Your task to perform on an android device: Check the news Image 0: 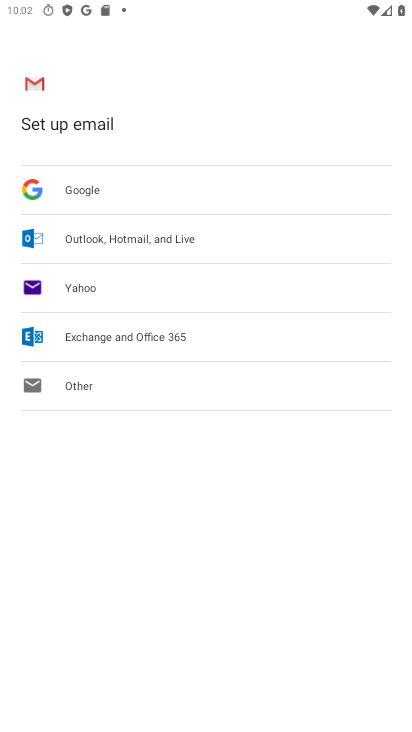
Step 0: press home button
Your task to perform on an android device: Check the news Image 1: 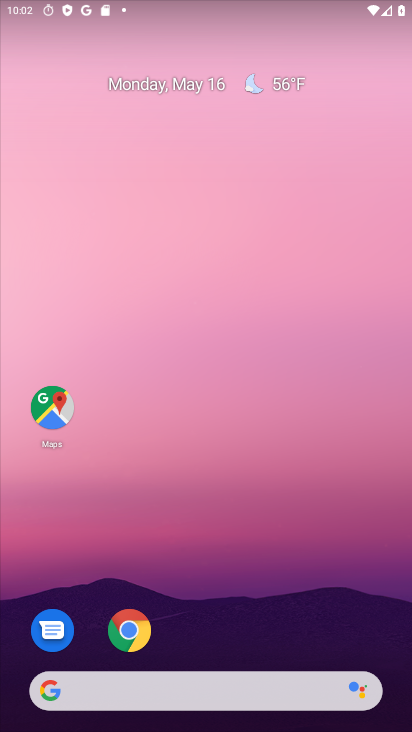
Step 1: click (210, 686)
Your task to perform on an android device: Check the news Image 2: 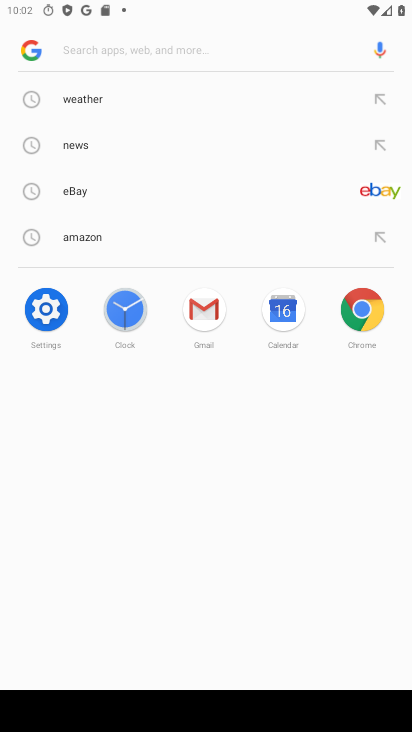
Step 2: click (101, 146)
Your task to perform on an android device: Check the news Image 3: 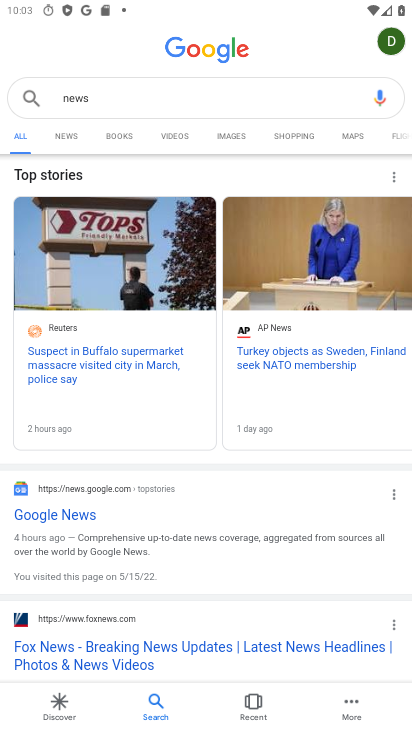
Step 3: task complete